Your task to perform on an android device: check android version Image 0: 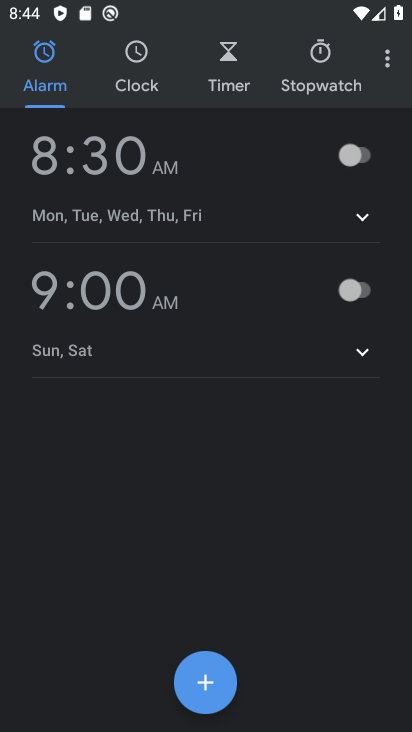
Step 0: press home button
Your task to perform on an android device: check android version Image 1: 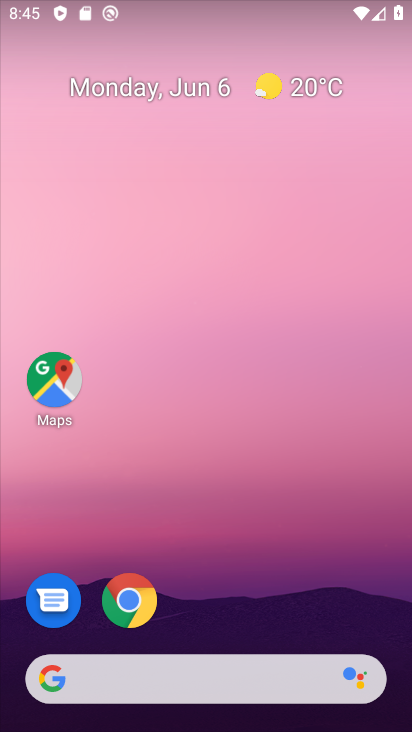
Step 1: drag from (135, 368) to (303, 113)
Your task to perform on an android device: check android version Image 2: 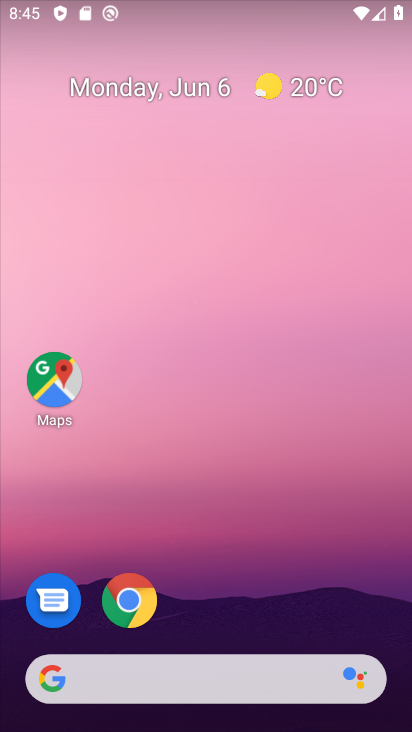
Step 2: drag from (41, 601) to (285, 133)
Your task to perform on an android device: check android version Image 3: 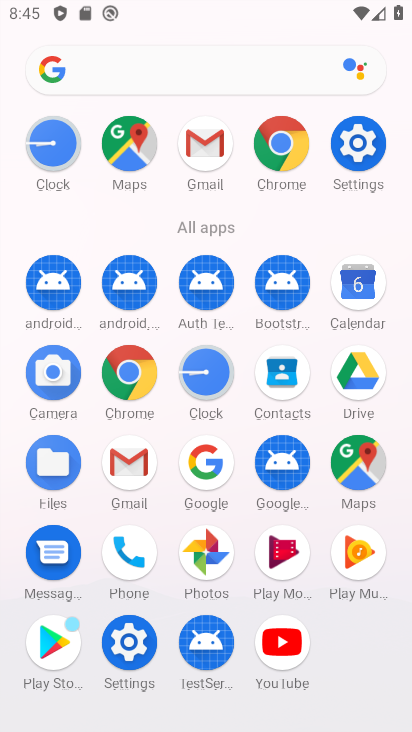
Step 3: click (363, 158)
Your task to perform on an android device: check android version Image 4: 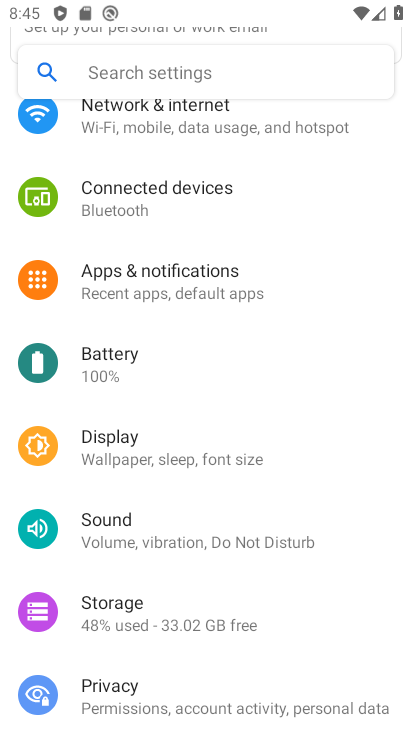
Step 4: drag from (10, 704) to (262, 277)
Your task to perform on an android device: check android version Image 5: 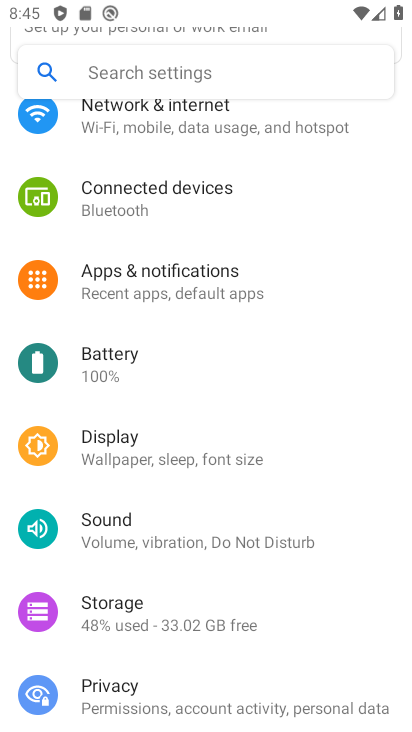
Step 5: drag from (41, 542) to (303, 173)
Your task to perform on an android device: check android version Image 6: 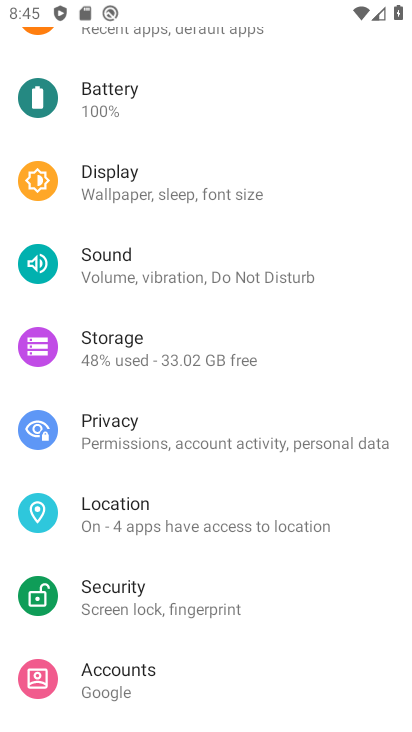
Step 6: drag from (42, 592) to (224, 327)
Your task to perform on an android device: check android version Image 7: 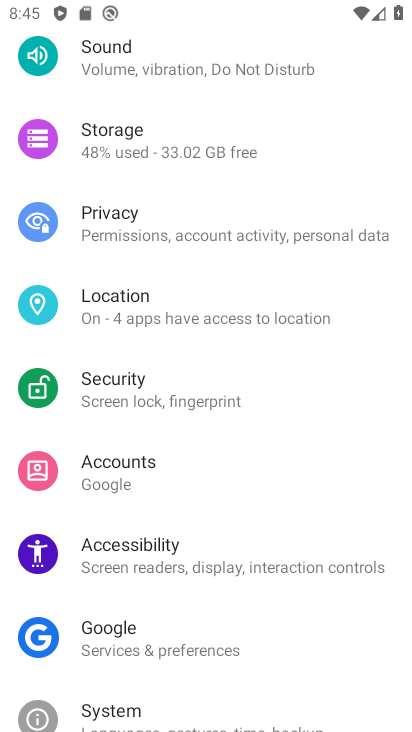
Step 7: click (111, 466)
Your task to perform on an android device: check android version Image 8: 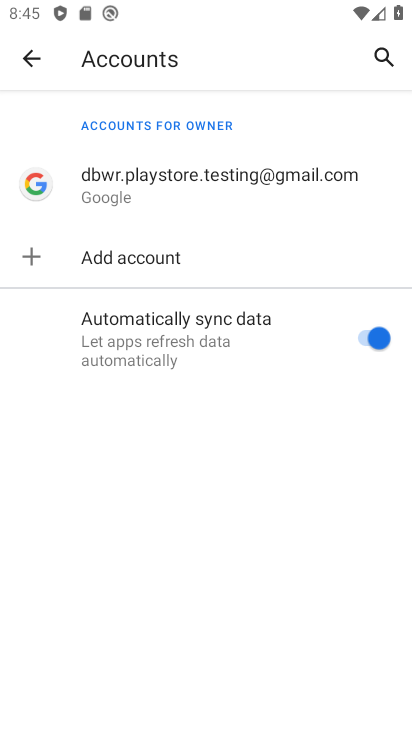
Step 8: task complete